Your task to perform on an android device: open a new tab in the chrome app Image 0: 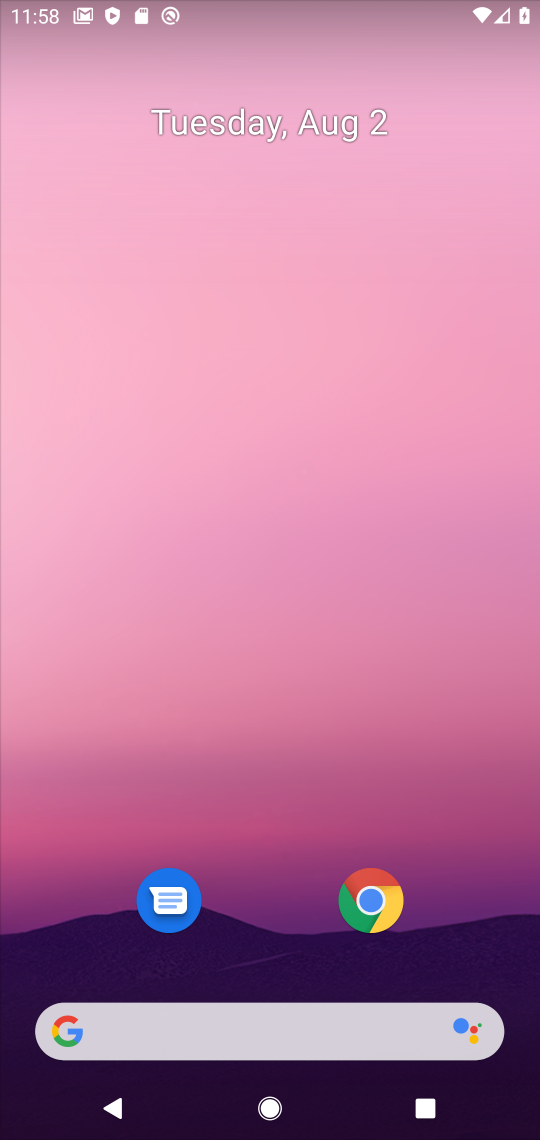
Step 0: drag from (338, 660) to (307, 10)
Your task to perform on an android device: open a new tab in the chrome app Image 1: 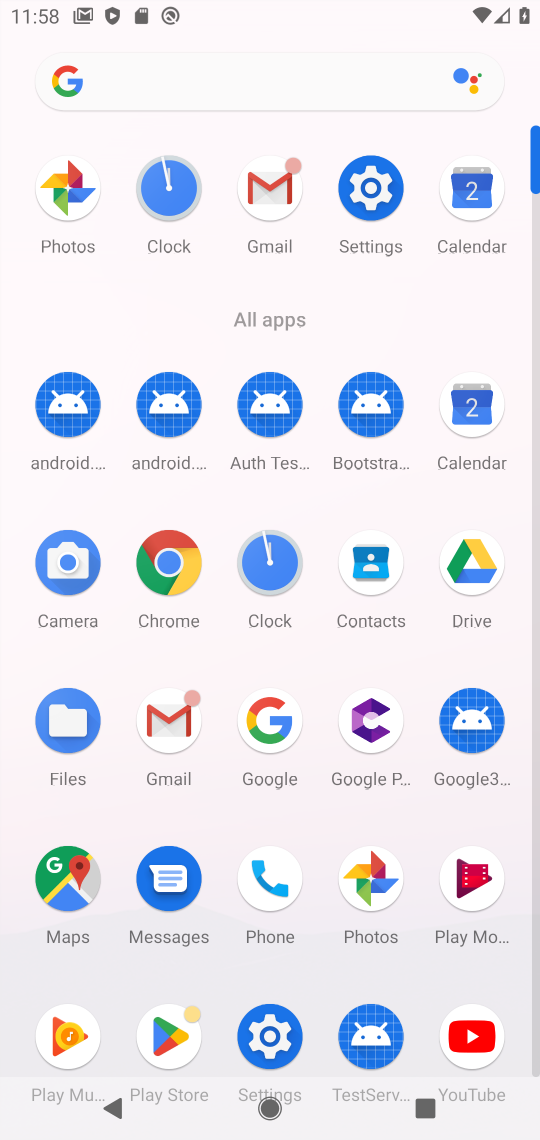
Step 1: click (169, 556)
Your task to perform on an android device: open a new tab in the chrome app Image 2: 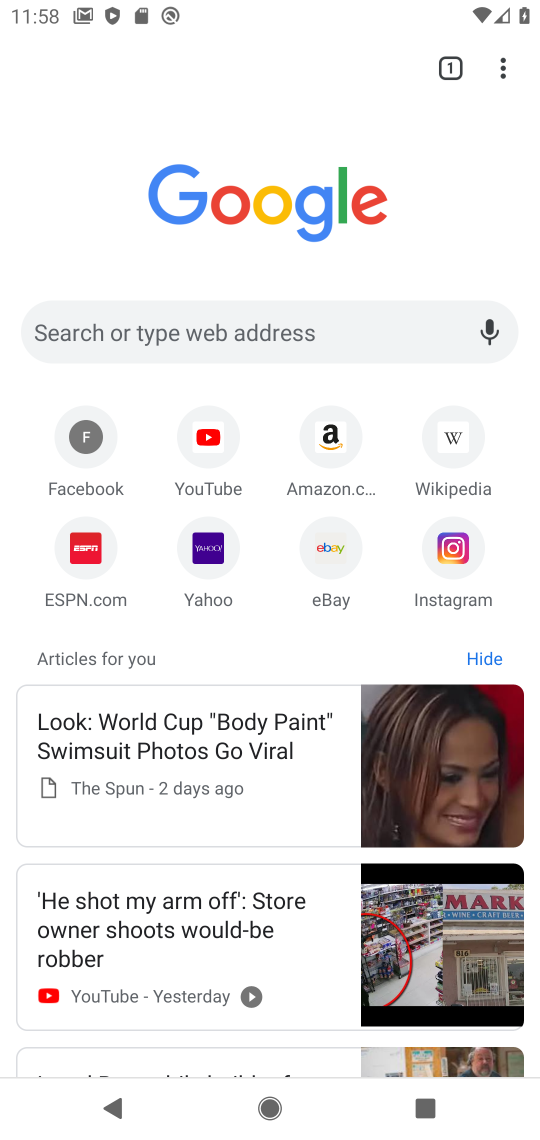
Step 2: task complete